Your task to perform on an android device: Go to Amazon Image 0: 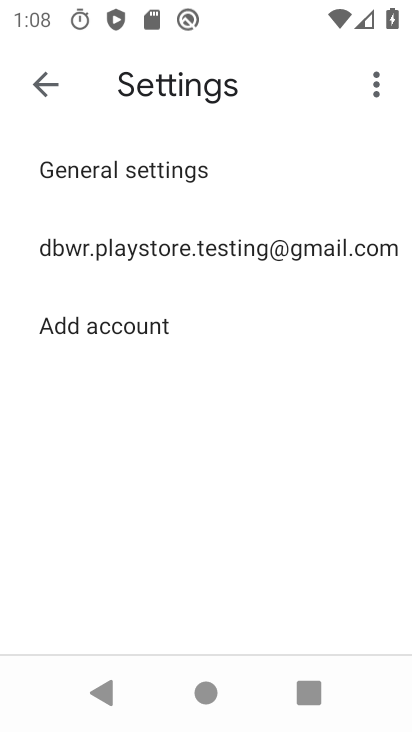
Step 0: press home button
Your task to perform on an android device: Go to Amazon Image 1: 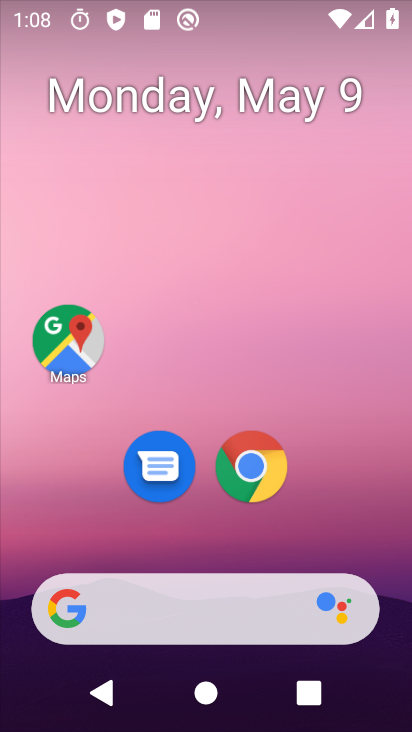
Step 1: drag from (251, 596) to (304, 248)
Your task to perform on an android device: Go to Amazon Image 2: 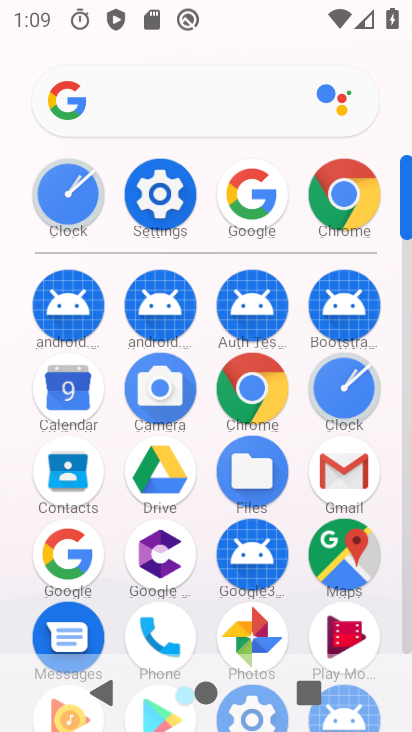
Step 2: click (339, 219)
Your task to perform on an android device: Go to Amazon Image 3: 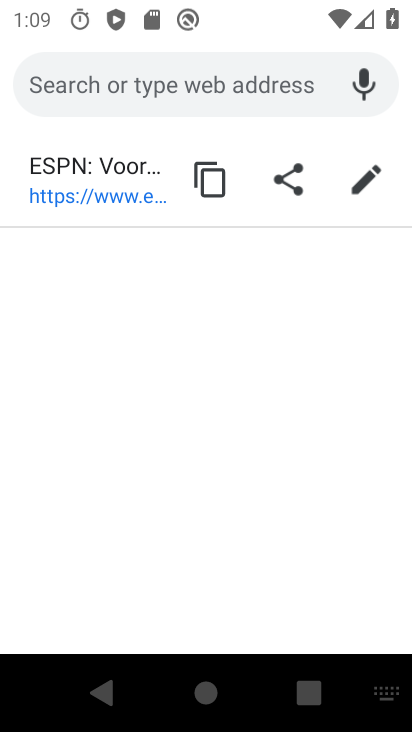
Step 3: type "amzszon"
Your task to perform on an android device: Go to Amazon Image 4: 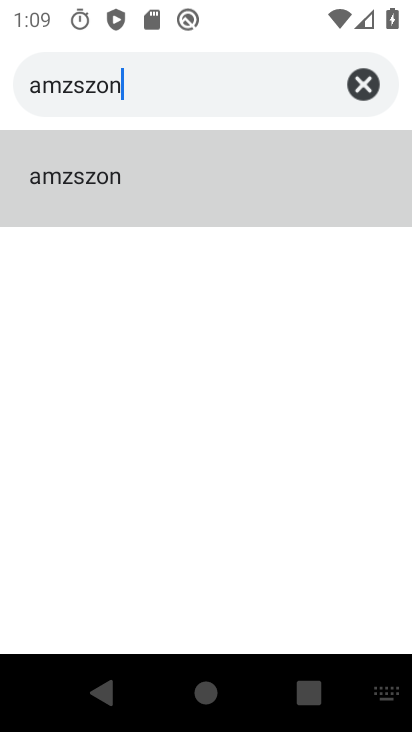
Step 4: click (369, 90)
Your task to perform on an android device: Go to Amazon Image 5: 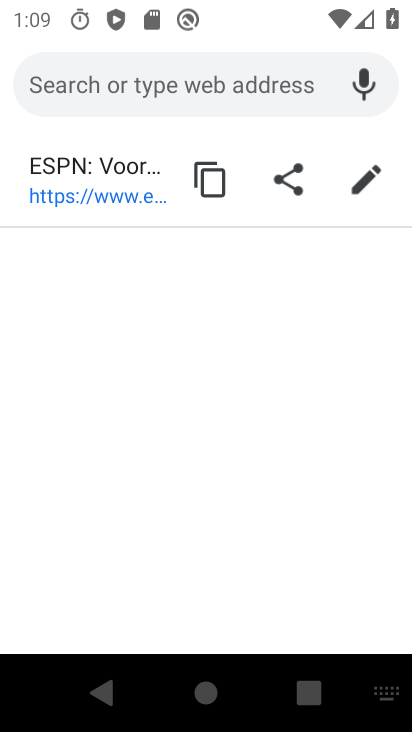
Step 5: type "amzon"
Your task to perform on an android device: Go to Amazon Image 6: 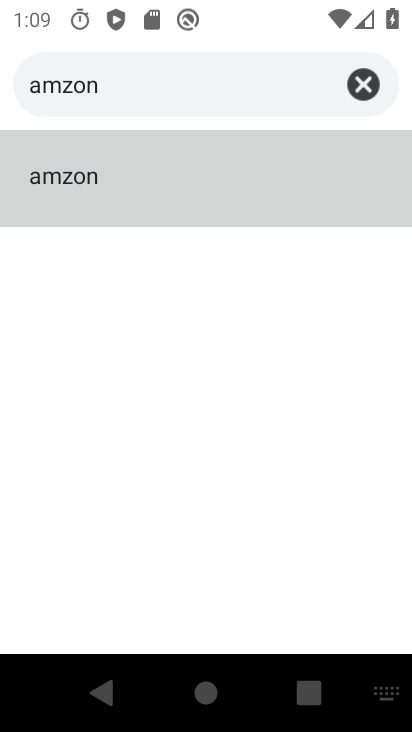
Step 6: click (287, 183)
Your task to perform on an android device: Go to Amazon Image 7: 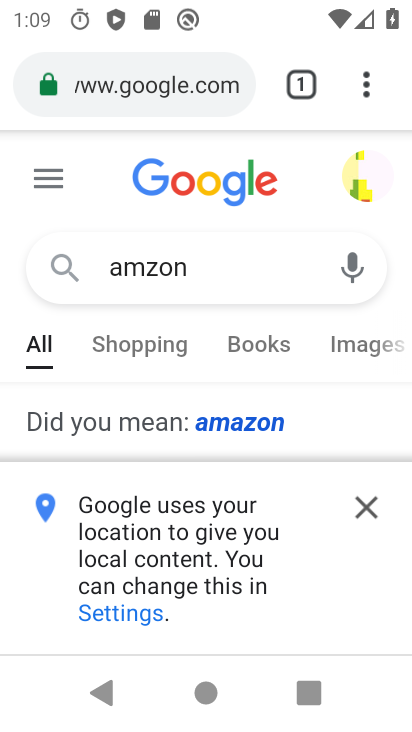
Step 7: click (364, 508)
Your task to perform on an android device: Go to Amazon Image 8: 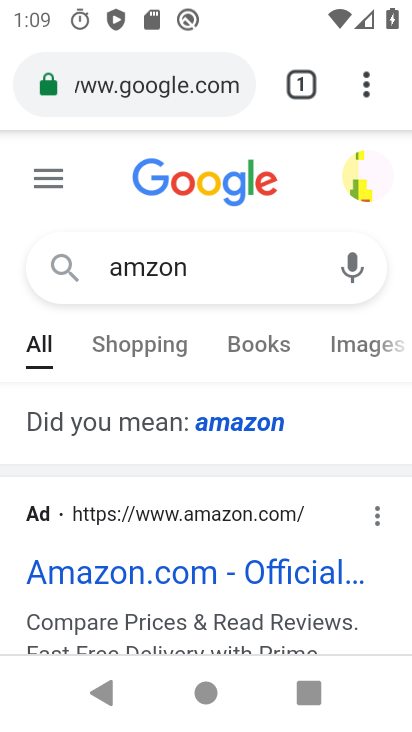
Step 8: click (196, 577)
Your task to perform on an android device: Go to Amazon Image 9: 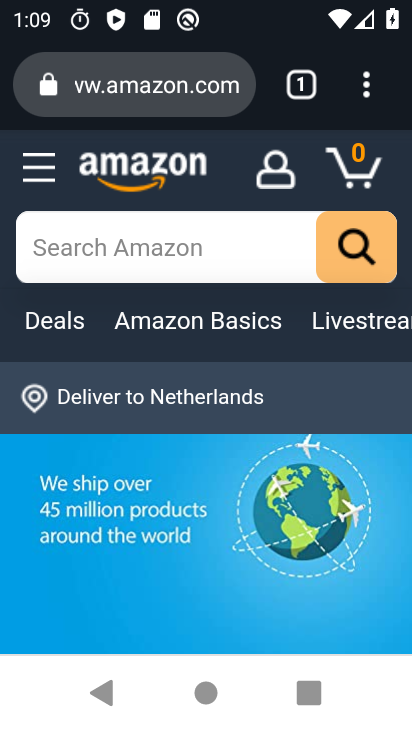
Step 9: task complete